Your task to perform on an android device: change notifications settings Image 0: 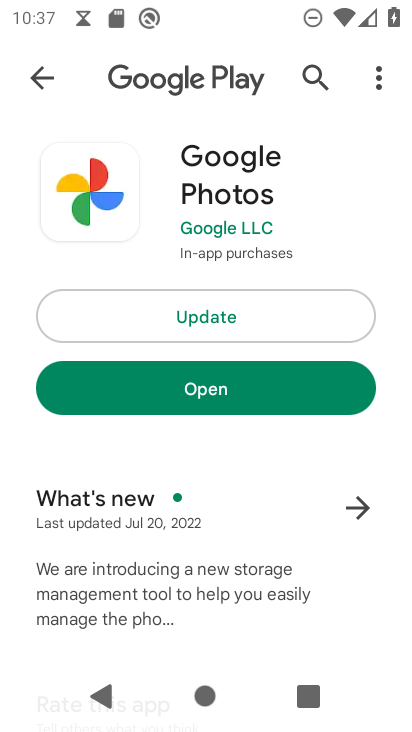
Step 0: press back button
Your task to perform on an android device: change notifications settings Image 1: 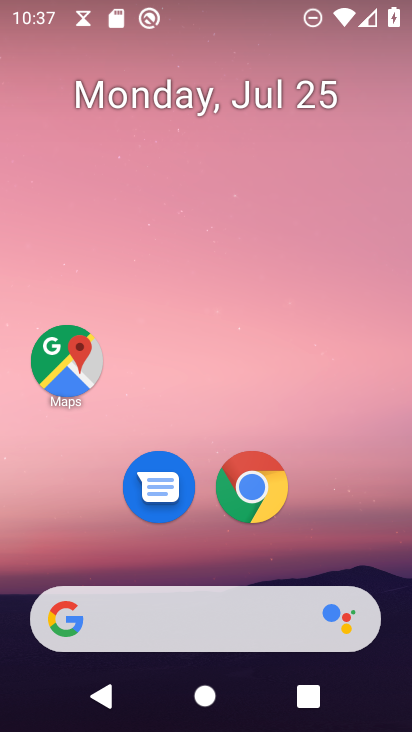
Step 1: drag from (139, 520) to (254, 1)
Your task to perform on an android device: change notifications settings Image 2: 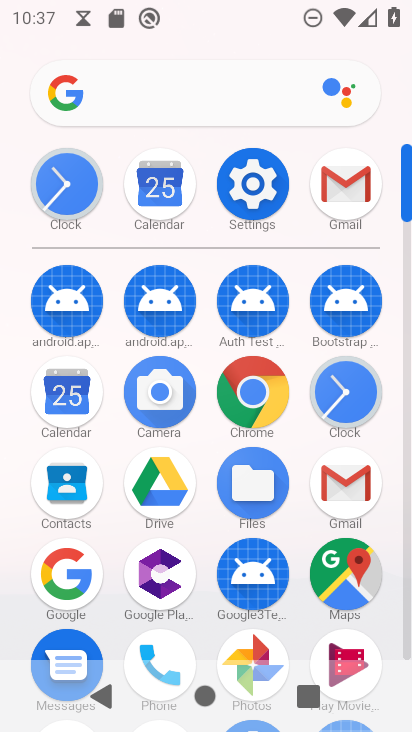
Step 2: click (258, 205)
Your task to perform on an android device: change notifications settings Image 3: 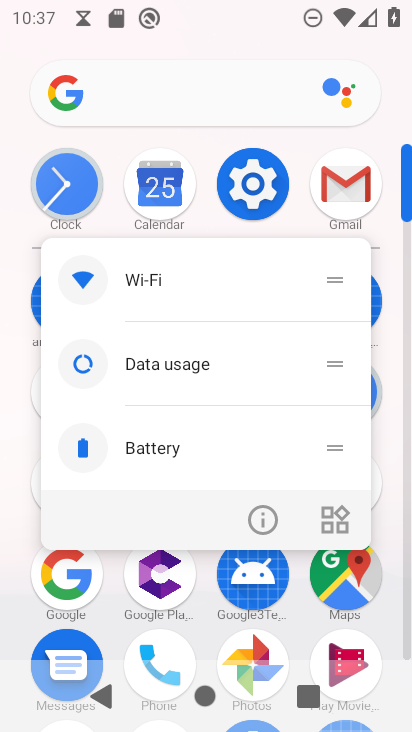
Step 3: click (264, 175)
Your task to perform on an android device: change notifications settings Image 4: 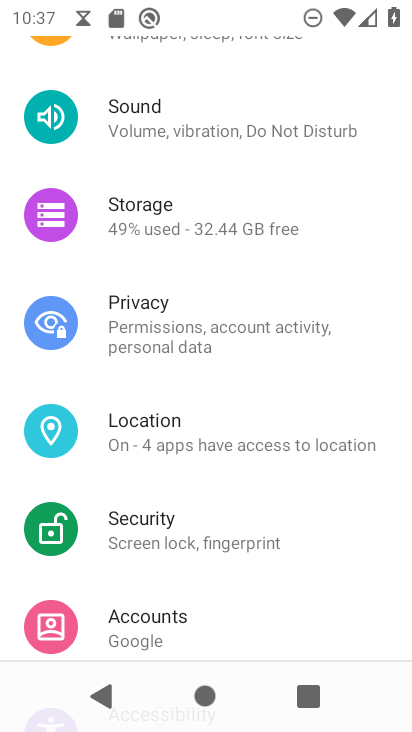
Step 4: drag from (226, 202) to (159, 671)
Your task to perform on an android device: change notifications settings Image 5: 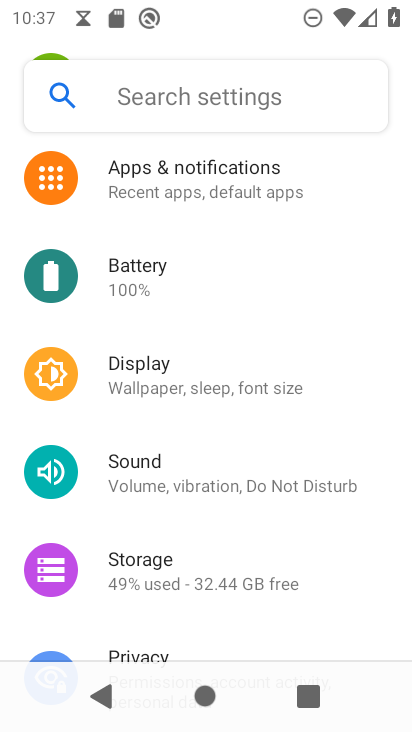
Step 5: click (243, 183)
Your task to perform on an android device: change notifications settings Image 6: 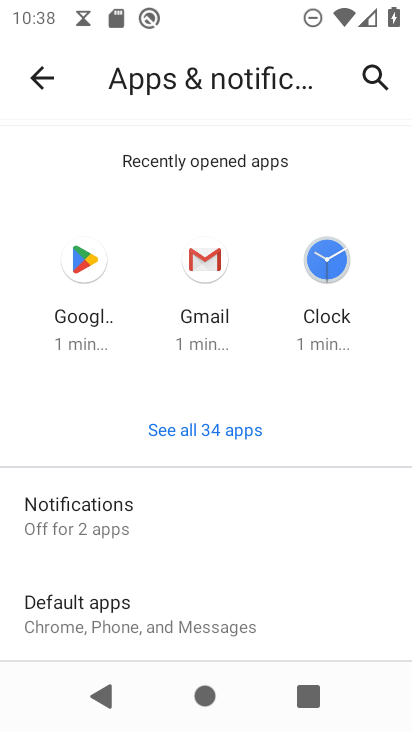
Step 6: click (145, 515)
Your task to perform on an android device: change notifications settings Image 7: 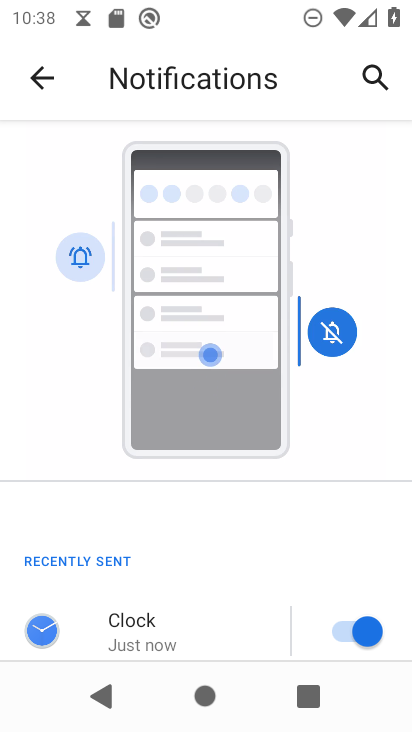
Step 7: drag from (150, 590) to (268, 82)
Your task to perform on an android device: change notifications settings Image 8: 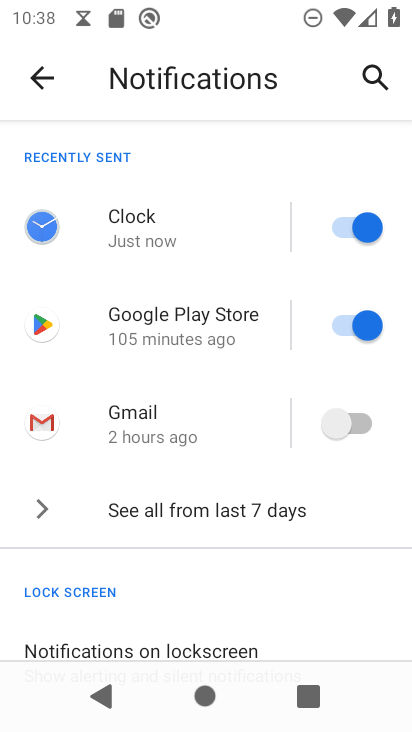
Step 8: drag from (202, 616) to (225, 137)
Your task to perform on an android device: change notifications settings Image 9: 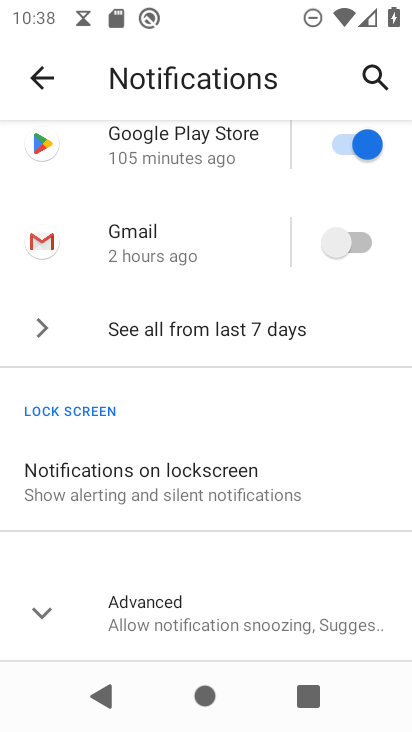
Step 9: click (175, 619)
Your task to perform on an android device: change notifications settings Image 10: 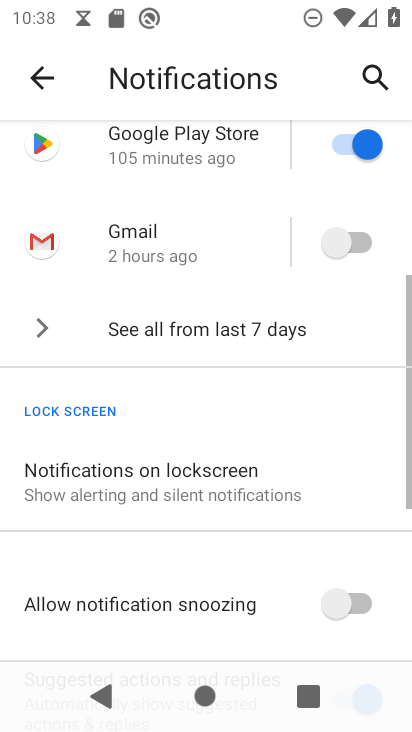
Step 10: click (359, 591)
Your task to perform on an android device: change notifications settings Image 11: 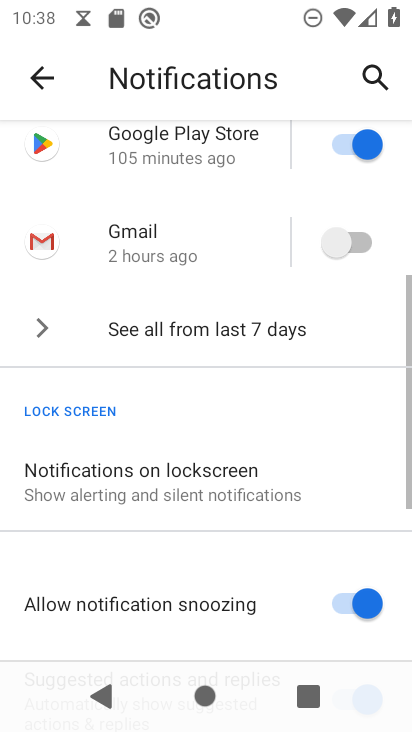
Step 11: task complete